Your task to perform on an android device: turn on wifi Image 0: 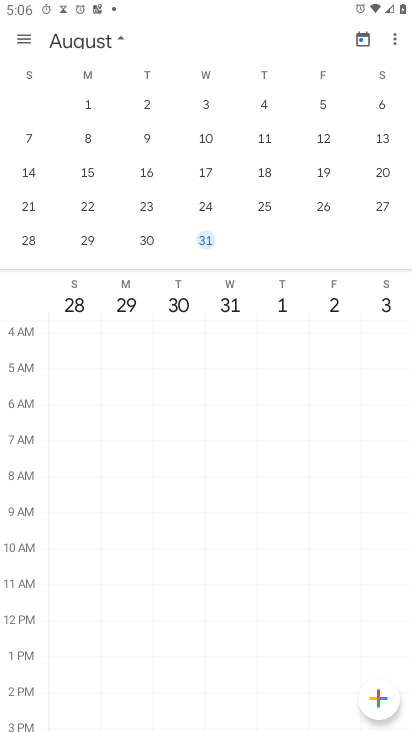
Step 0: press home button
Your task to perform on an android device: turn on wifi Image 1: 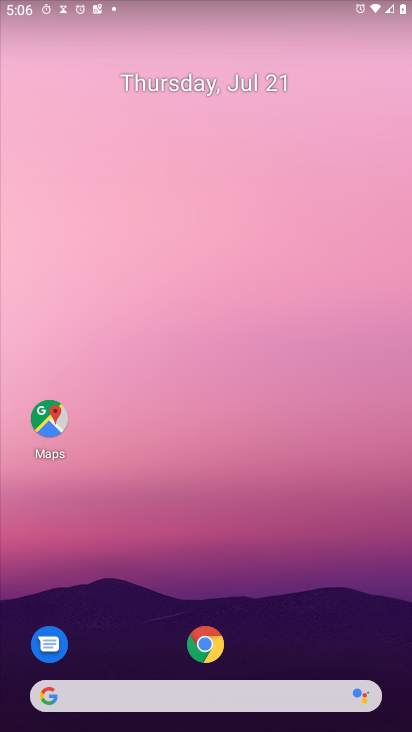
Step 1: press home button
Your task to perform on an android device: turn on wifi Image 2: 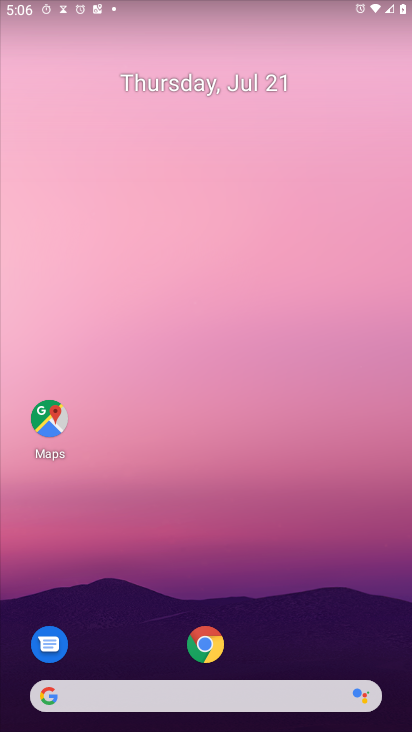
Step 2: drag from (341, 613) to (290, 3)
Your task to perform on an android device: turn on wifi Image 3: 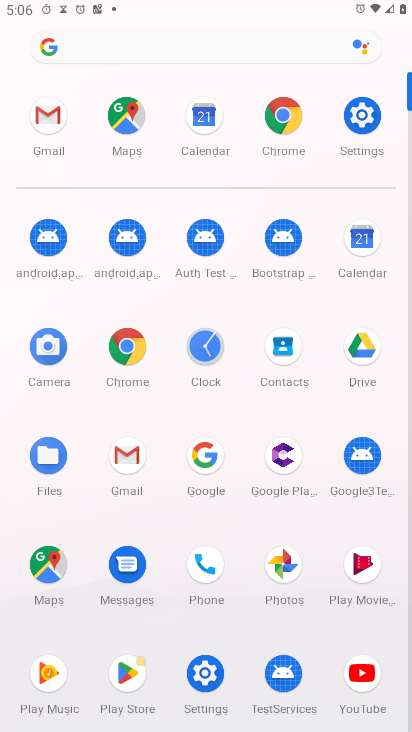
Step 3: click (370, 170)
Your task to perform on an android device: turn on wifi Image 4: 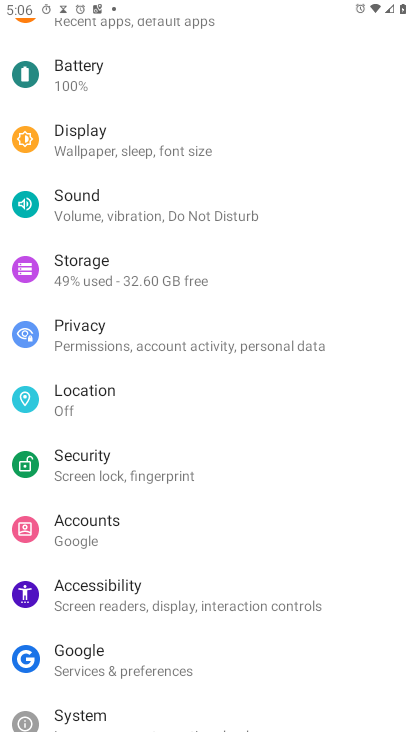
Step 4: drag from (171, 46) to (197, 448)
Your task to perform on an android device: turn on wifi Image 5: 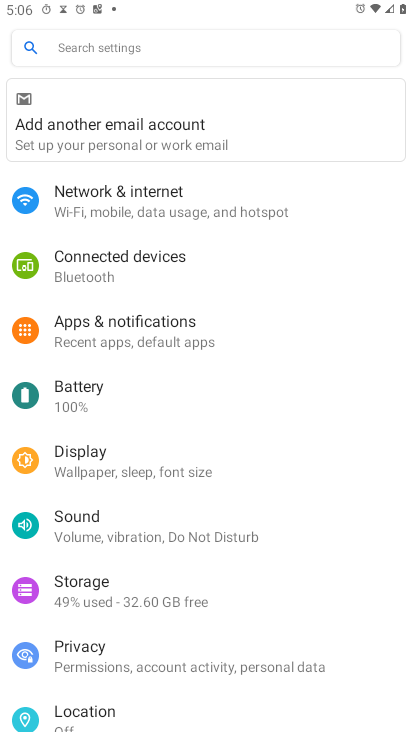
Step 5: click (160, 197)
Your task to perform on an android device: turn on wifi Image 6: 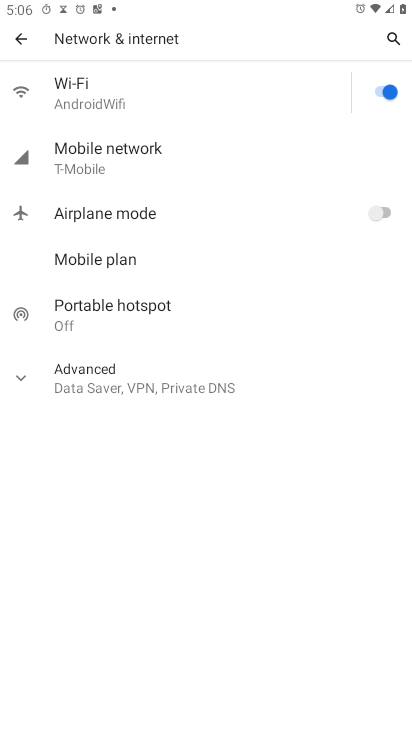
Step 6: task complete